Your task to perform on an android device: uninstall "Roku - Official Remote Control" Image 0: 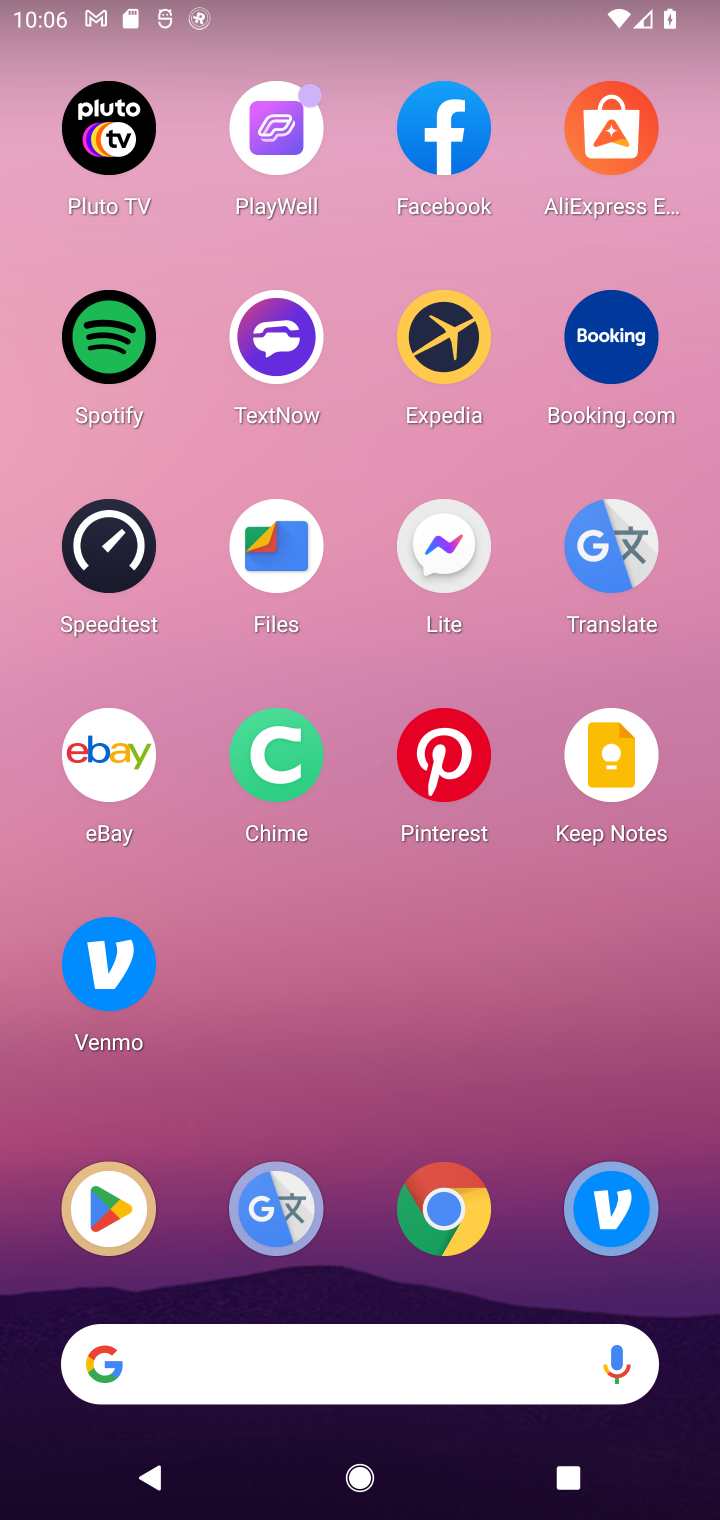
Step 0: press home button
Your task to perform on an android device: uninstall "Roku - Official Remote Control" Image 1: 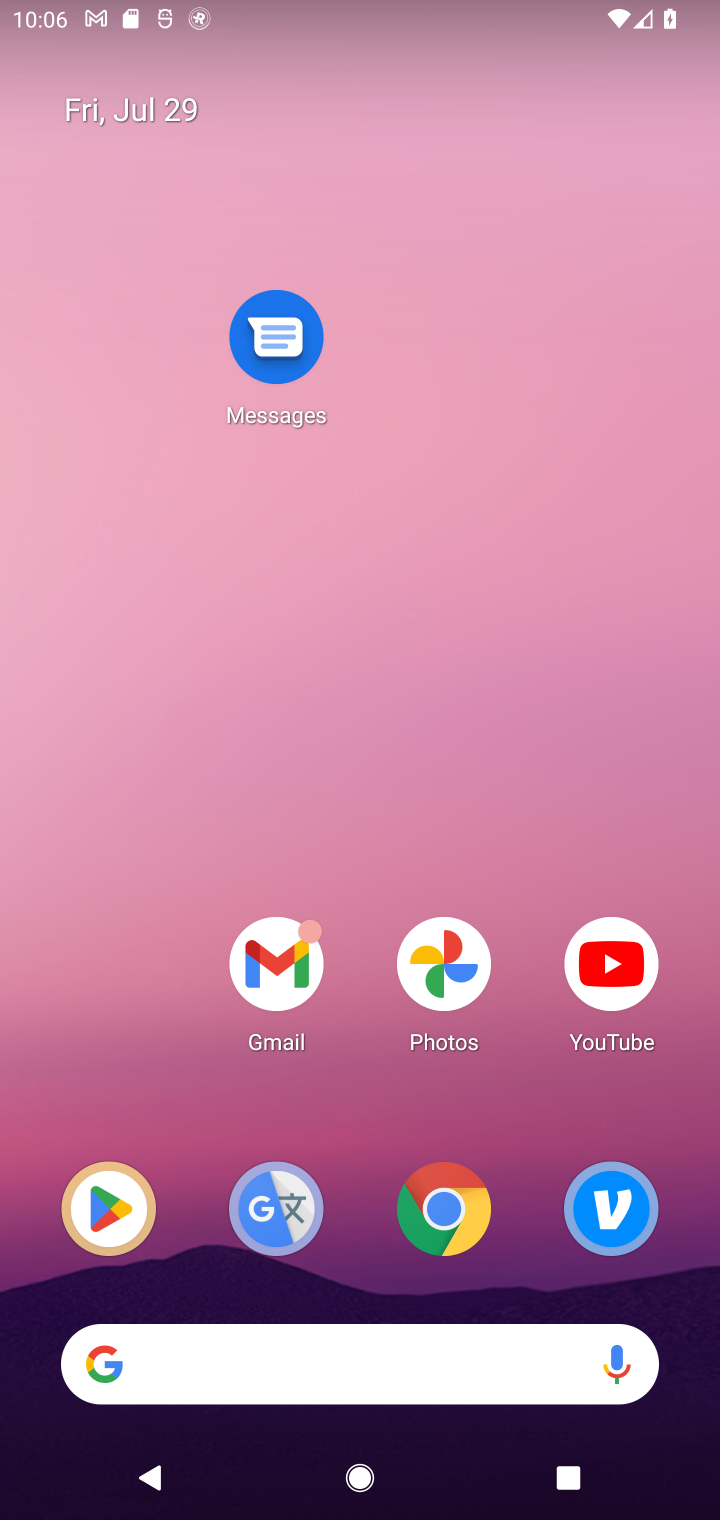
Step 1: drag from (308, 1383) to (518, 183)
Your task to perform on an android device: uninstall "Roku - Official Remote Control" Image 2: 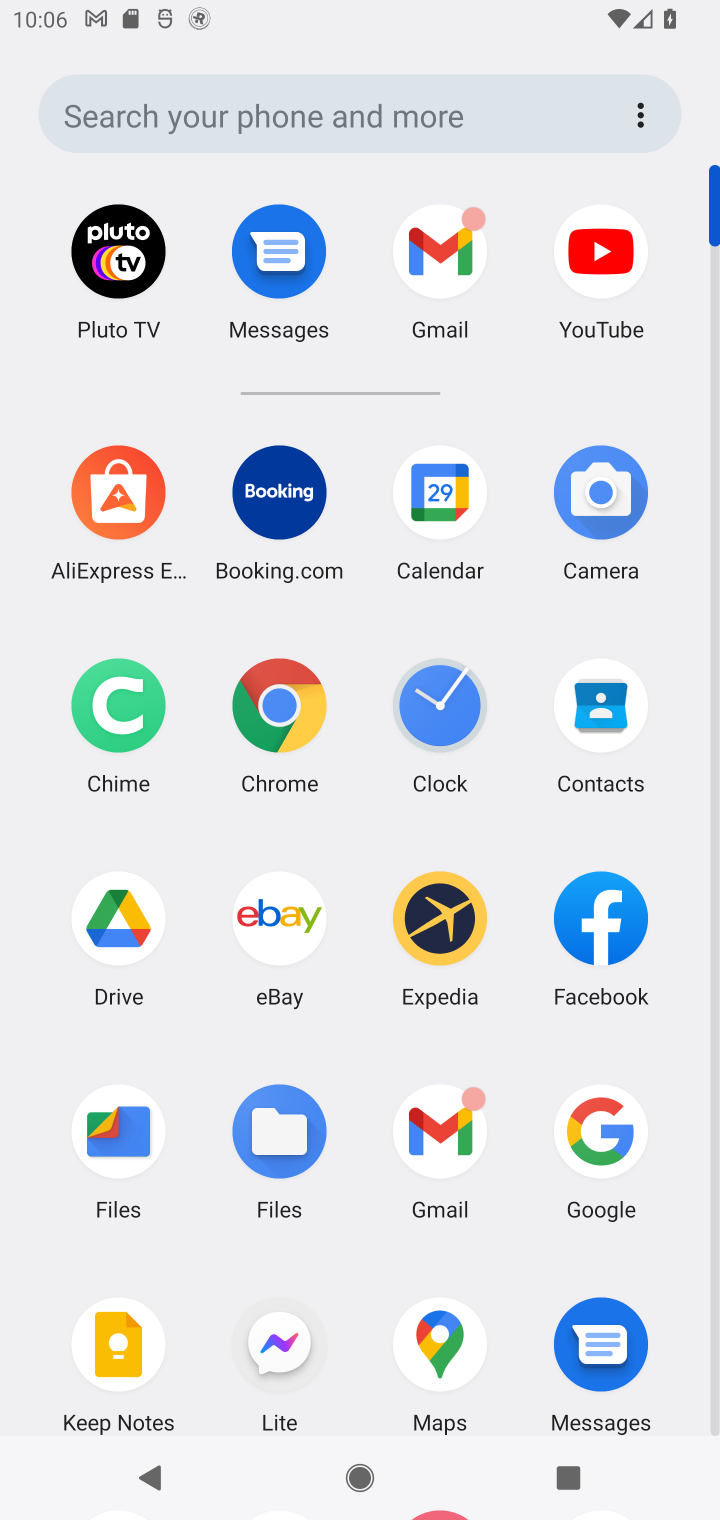
Step 2: drag from (494, 1229) to (486, 330)
Your task to perform on an android device: uninstall "Roku - Official Remote Control" Image 3: 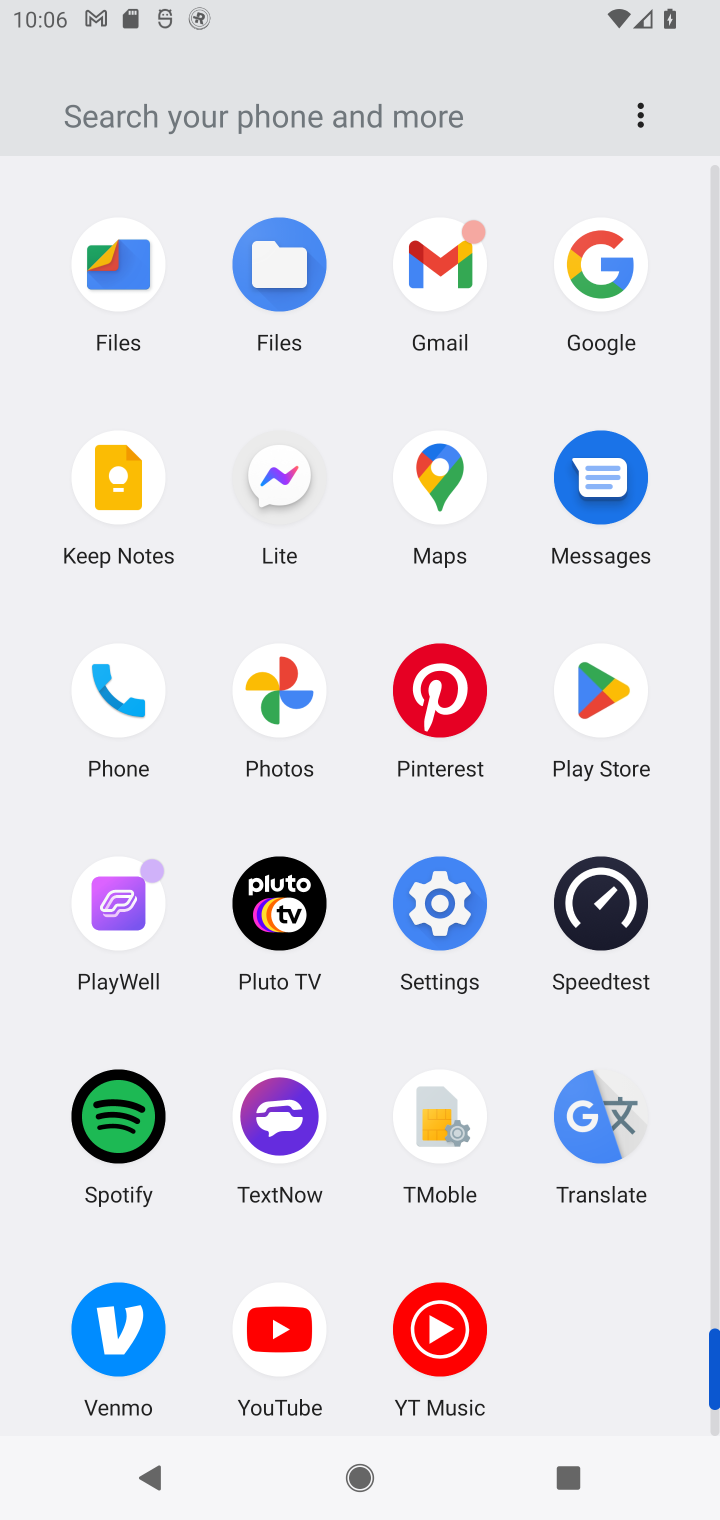
Step 3: click (604, 703)
Your task to perform on an android device: uninstall "Roku - Official Remote Control" Image 4: 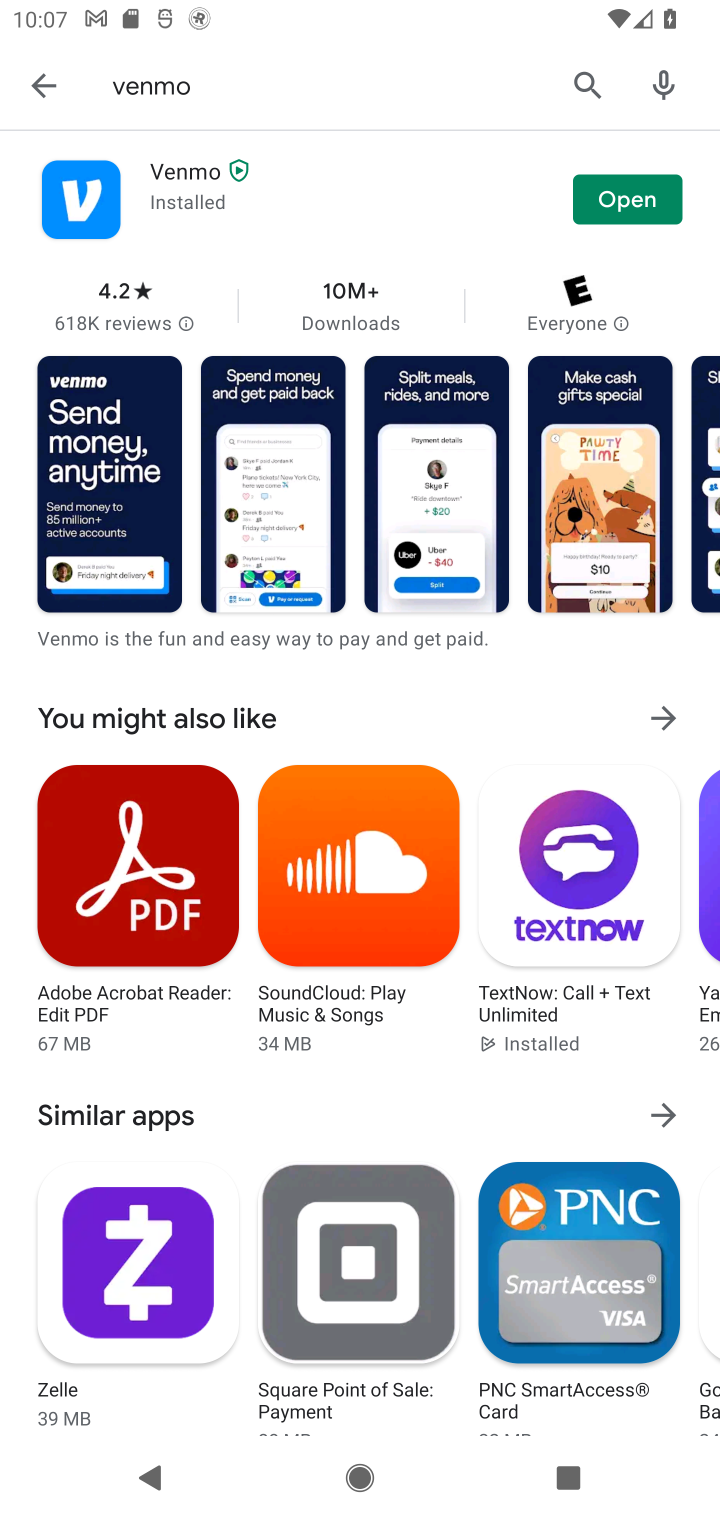
Step 4: click (577, 92)
Your task to perform on an android device: uninstall "Roku - Official Remote Control" Image 5: 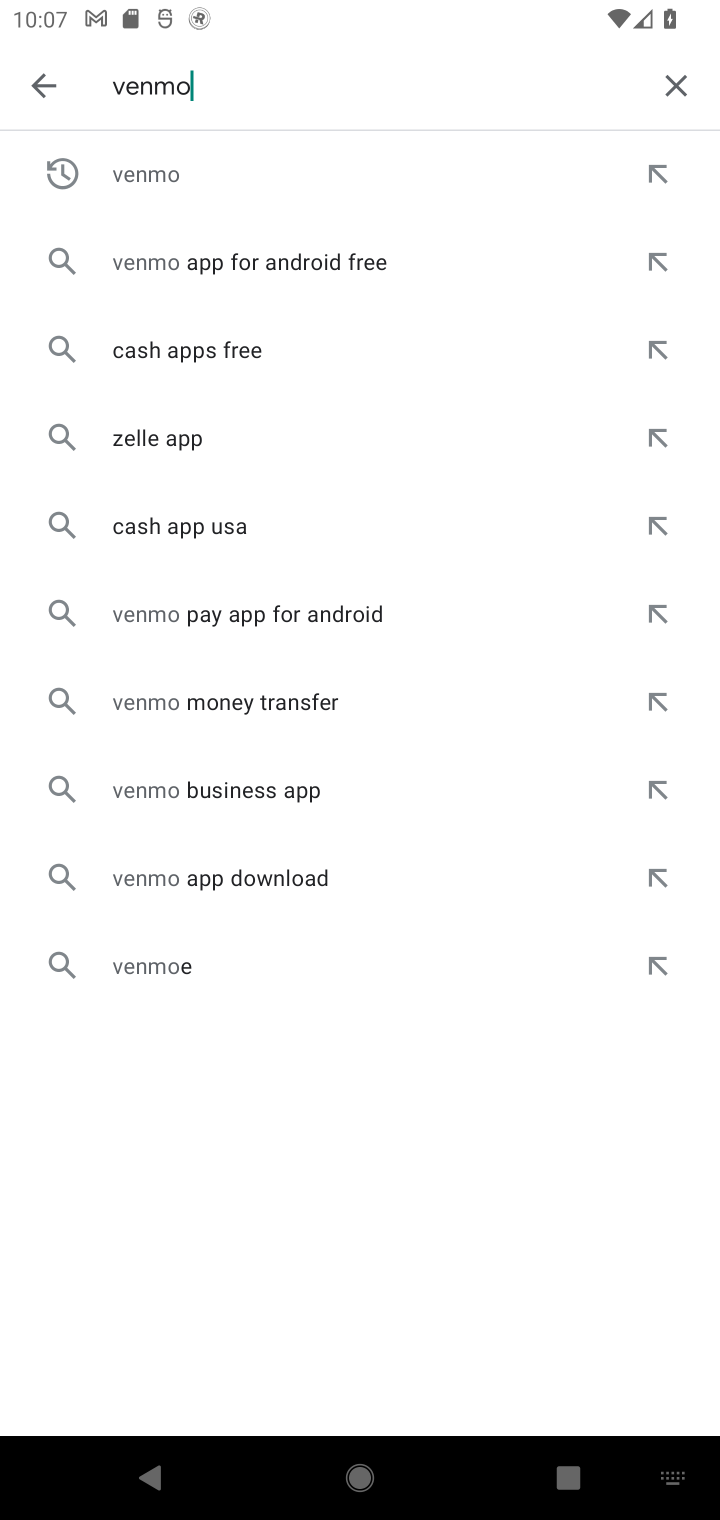
Step 5: click (683, 77)
Your task to perform on an android device: uninstall "Roku - Official Remote Control" Image 6: 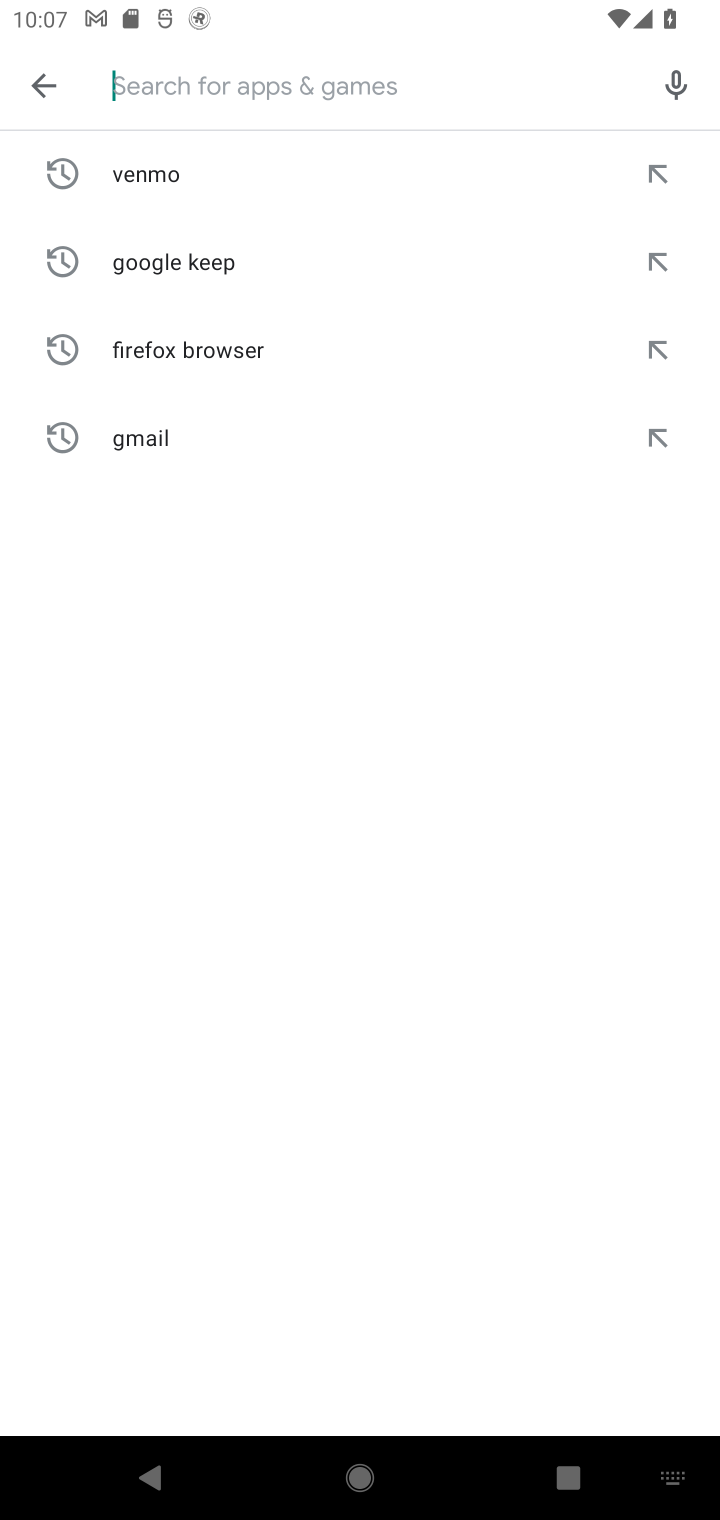
Step 6: type "Roku - Official Remote Control"
Your task to perform on an android device: uninstall "Roku - Official Remote Control" Image 7: 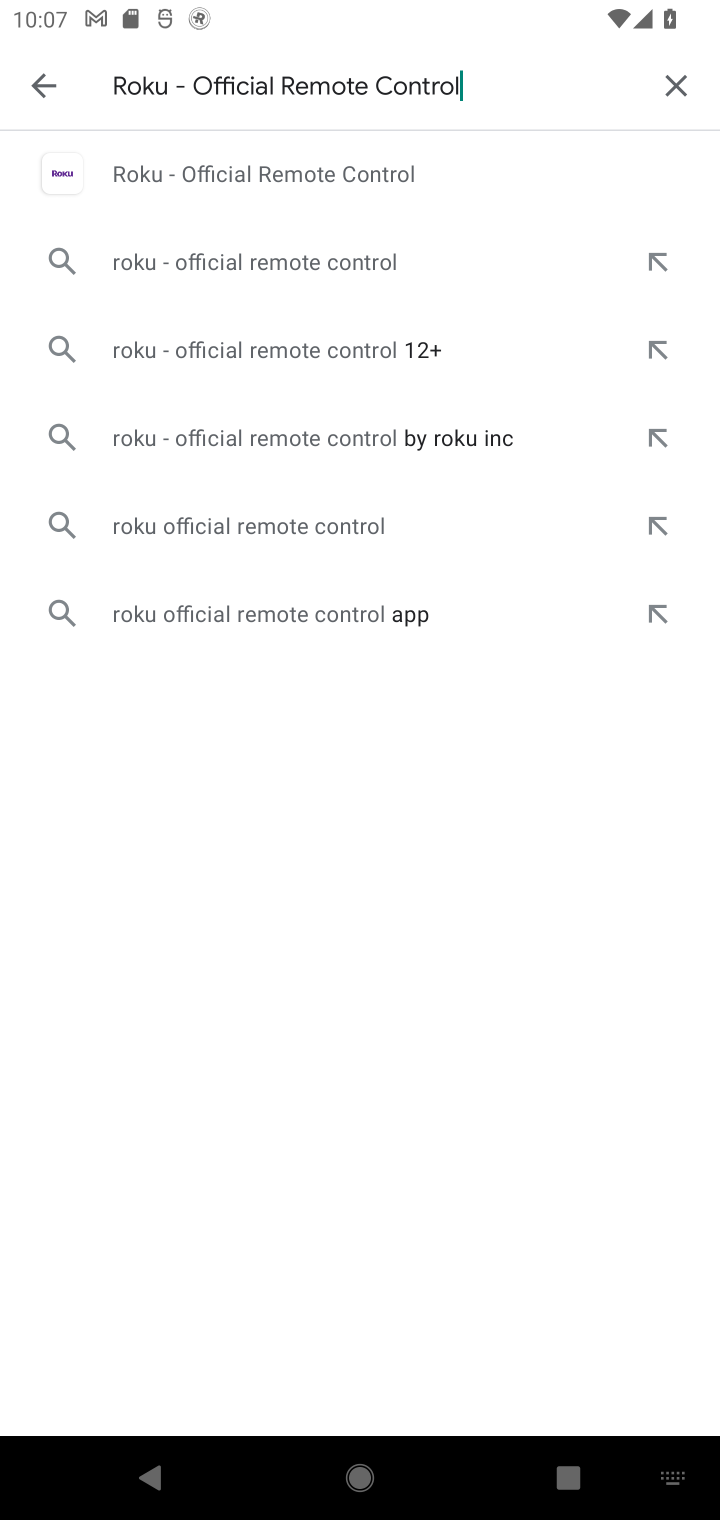
Step 7: click (276, 173)
Your task to perform on an android device: uninstall "Roku - Official Remote Control" Image 8: 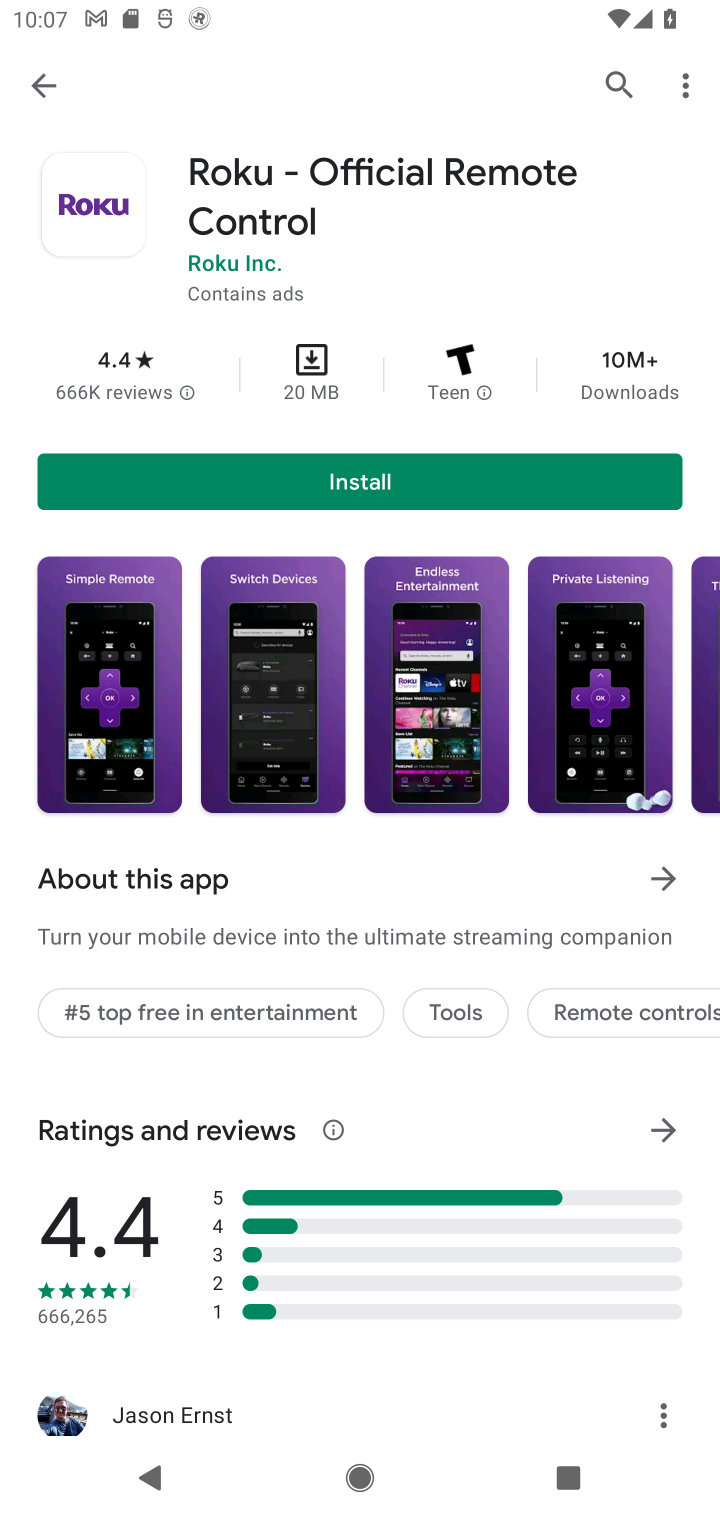
Step 8: task complete